Your task to perform on an android device: Open settings on Google Maps Image 0: 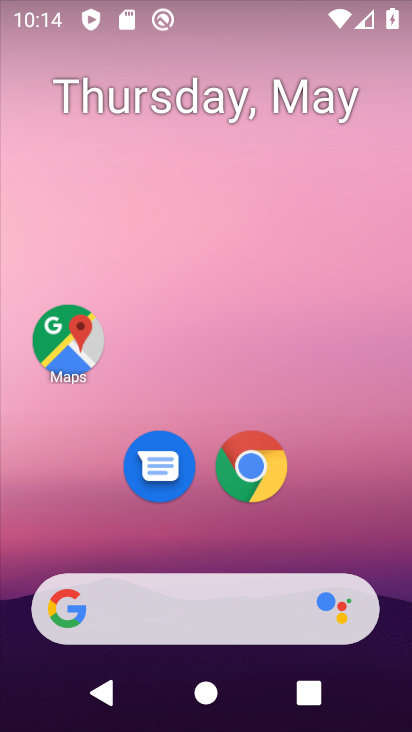
Step 0: click (73, 334)
Your task to perform on an android device: Open settings on Google Maps Image 1: 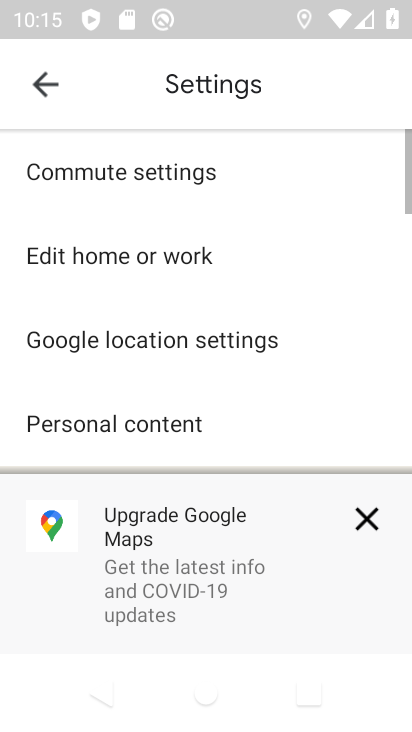
Step 1: task complete